Your task to perform on an android device: open a bookmark in the chrome app Image 0: 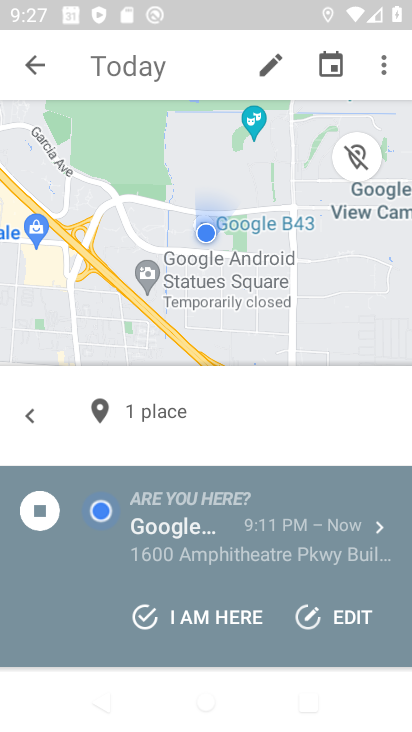
Step 0: press home button
Your task to perform on an android device: open a bookmark in the chrome app Image 1: 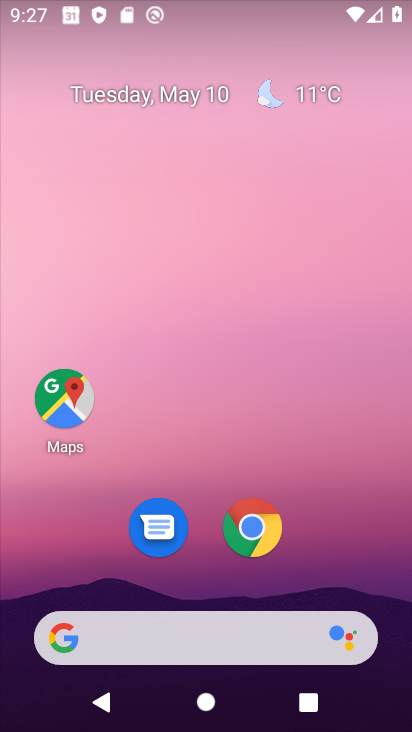
Step 1: click (239, 521)
Your task to perform on an android device: open a bookmark in the chrome app Image 2: 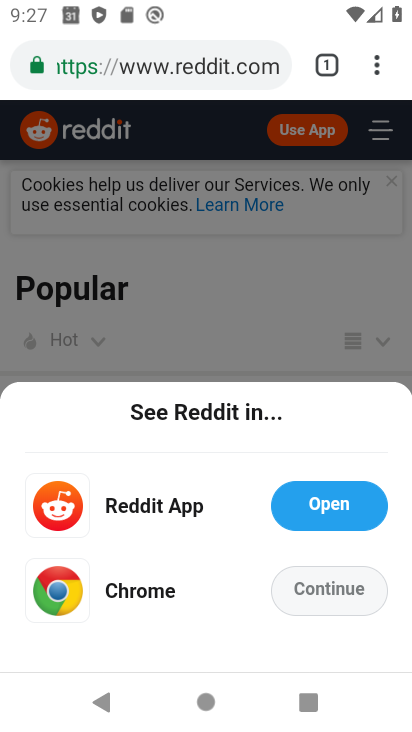
Step 2: click (378, 68)
Your task to perform on an android device: open a bookmark in the chrome app Image 3: 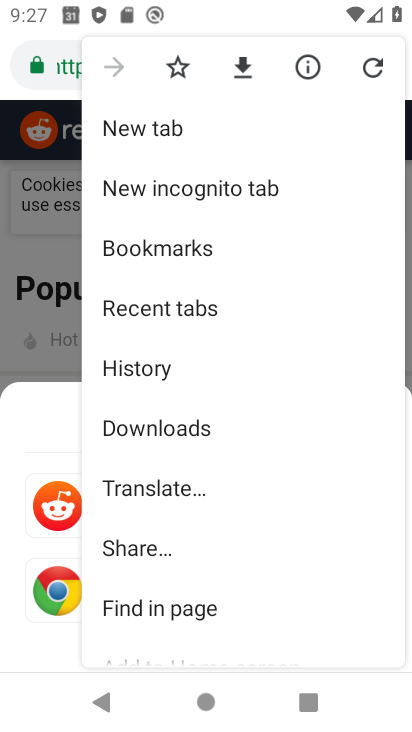
Step 3: click (214, 253)
Your task to perform on an android device: open a bookmark in the chrome app Image 4: 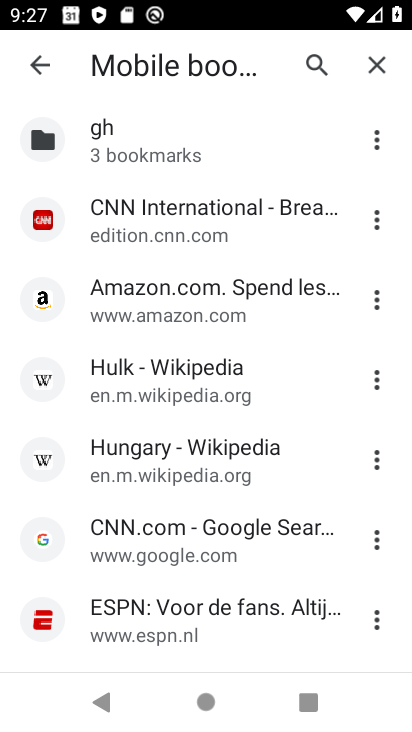
Step 4: click (234, 363)
Your task to perform on an android device: open a bookmark in the chrome app Image 5: 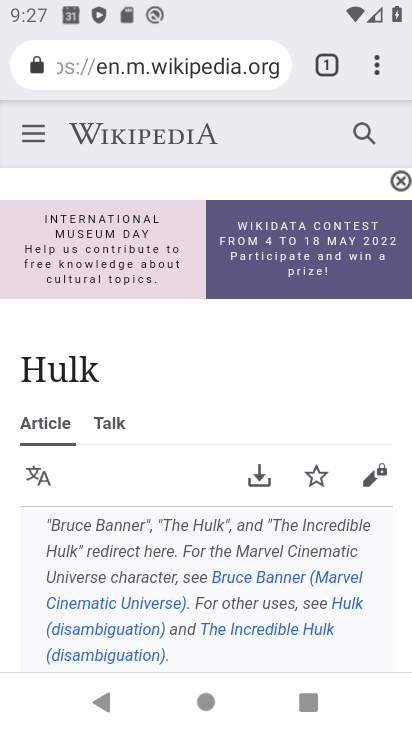
Step 5: task complete